Your task to perform on an android device: Go to Maps Image 0: 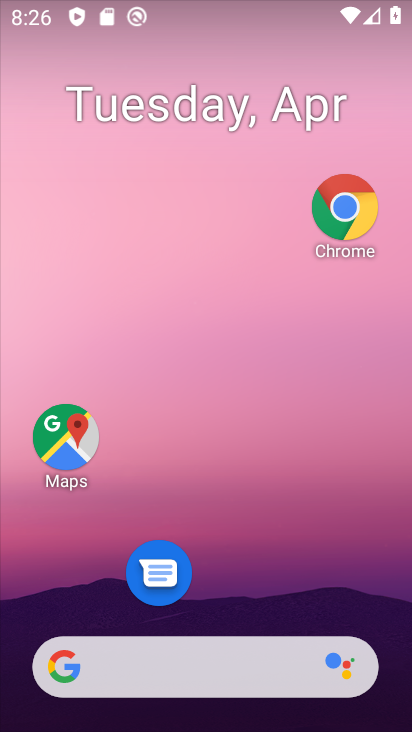
Step 0: drag from (235, 629) to (184, 53)
Your task to perform on an android device: Go to Maps Image 1: 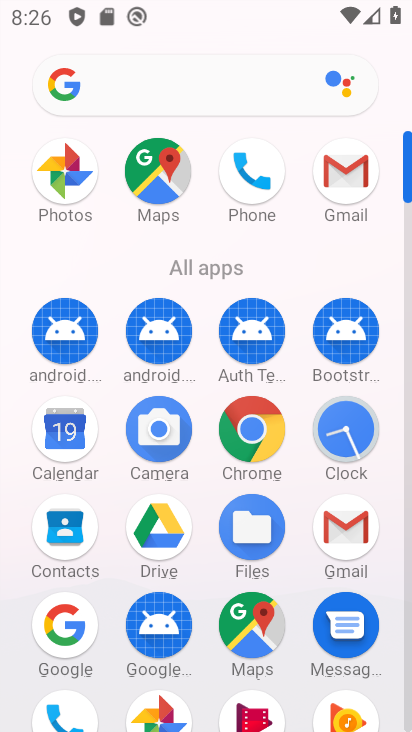
Step 1: click (251, 624)
Your task to perform on an android device: Go to Maps Image 2: 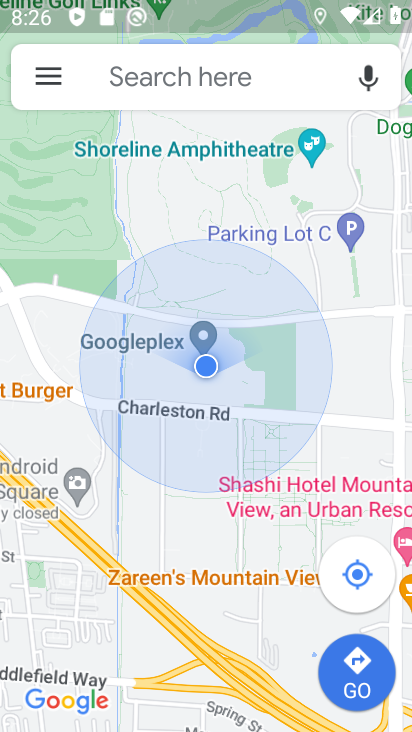
Step 2: task complete